Your task to perform on an android device: turn on notifications settings in the gmail app Image 0: 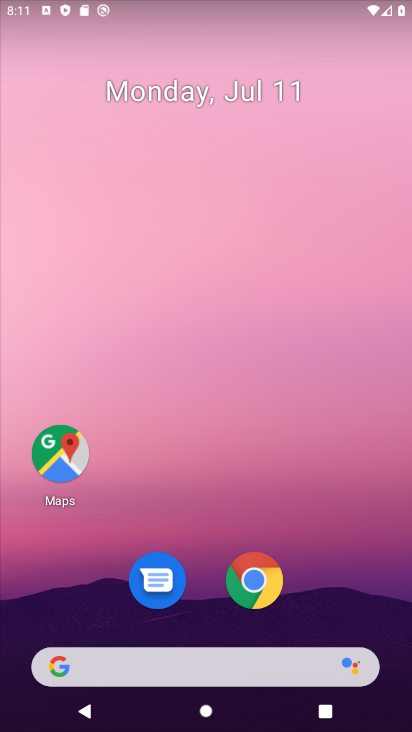
Step 0: drag from (232, 505) to (226, 13)
Your task to perform on an android device: turn on notifications settings in the gmail app Image 1: 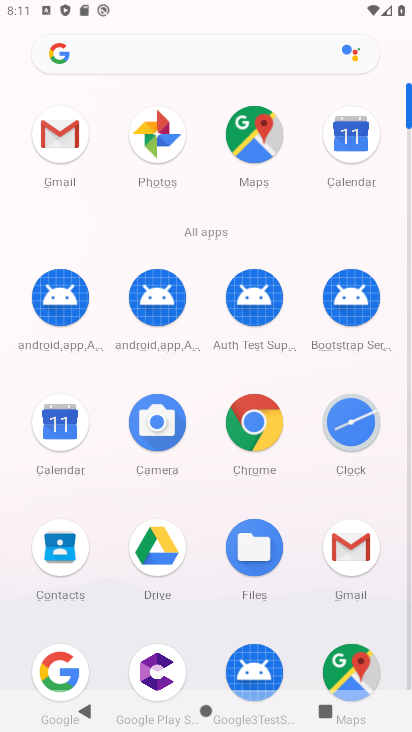
Step 1: click (62, 140)
Your task to perform on an android device: turn on notifications settings in the gmail app Image 2: 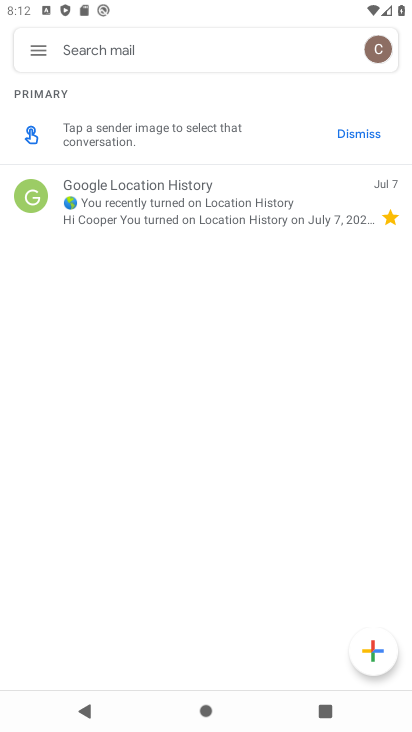
Step 2: click (42, 50)
Your task to perform on an android device: turn on notifications settings in the gmail app Image 3: 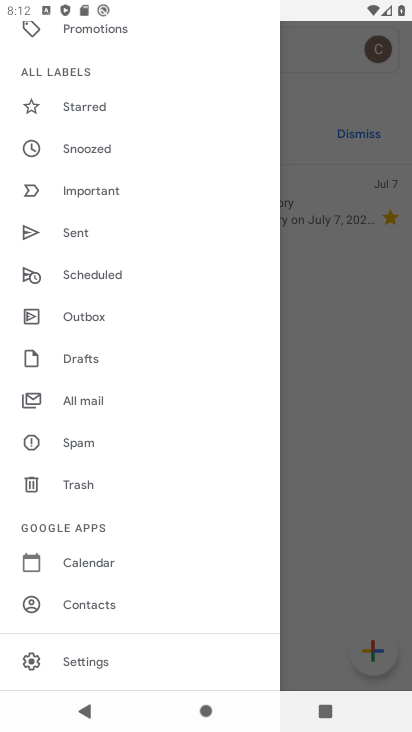
Step 3: click (87, 661)
Your task to perform on an android device: turn on notifications settings in the gmail app Image 4: 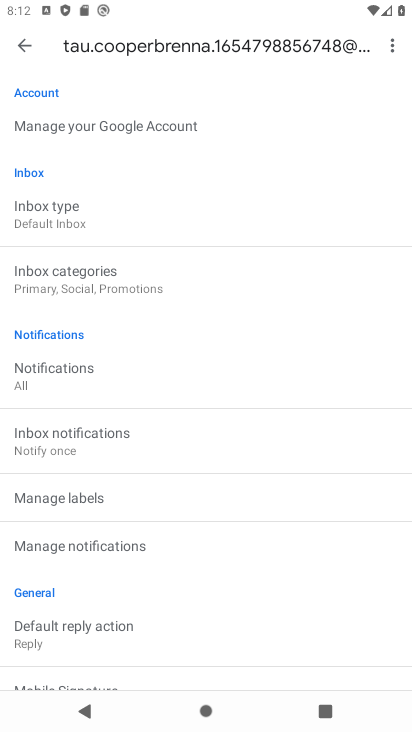
Step 4: click (101, 549)
Your task to perform on an android device: turn on notifications settings in the gmail app Image 5: 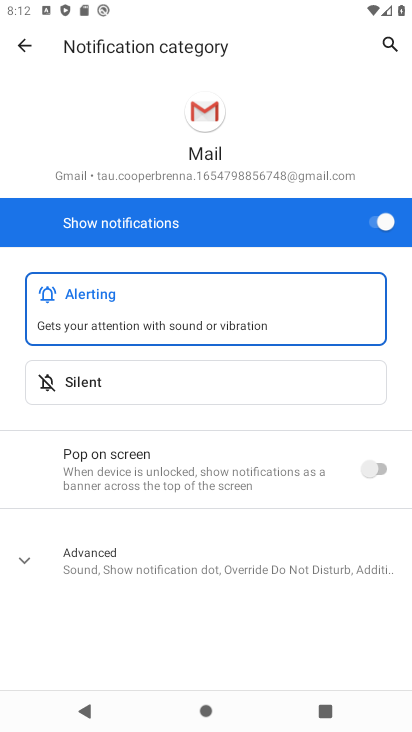
Step 5: task complete